Your task to perform on an android device: Search for Mexican restaurants on Maps Image 0: 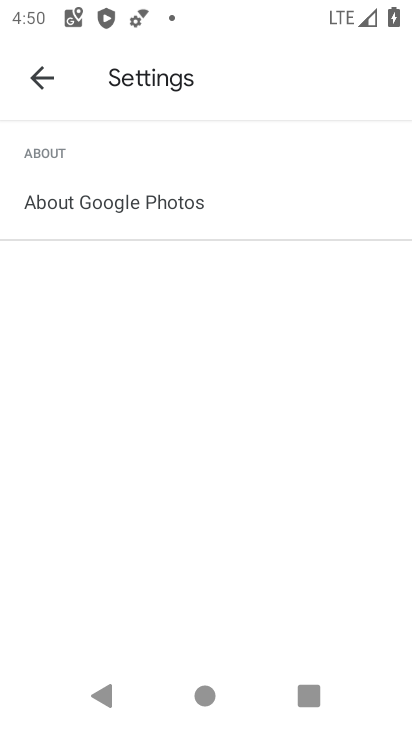
Step 0: press home button
Your task to perform on an android device: Search for Mexican restaurants on Maps Image 1: 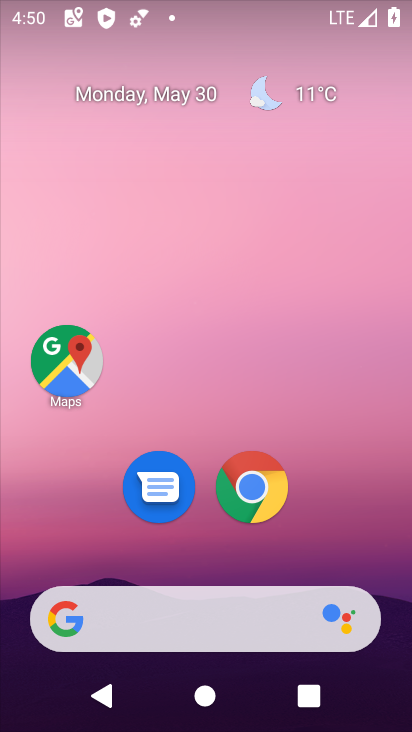
Step 1: click (65, 363)
Your task to perform on an android device: Search for Mexican restaurants on Maps Image 2: 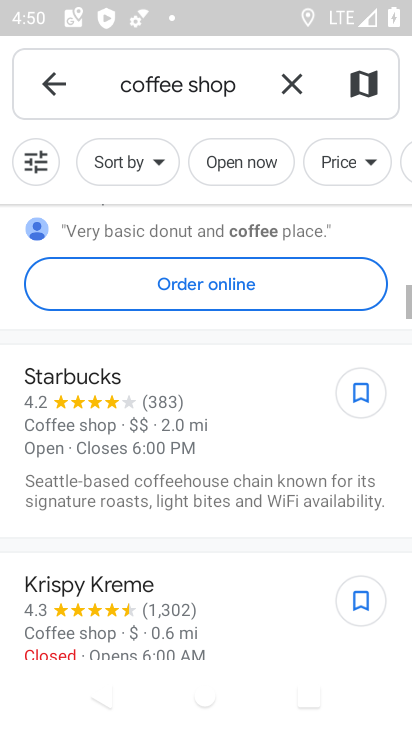
Step 2: click (286, 80)
Your task to perform on an android device: Search for Mexican restaurants on Maps Image 3: 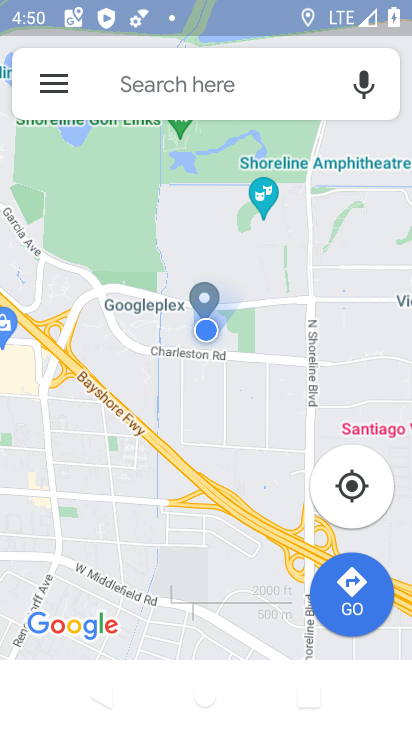
Step 3: click (159, 89)
Your task to perform on an android device: Search for Mexican restaurants on Maps Image 4: 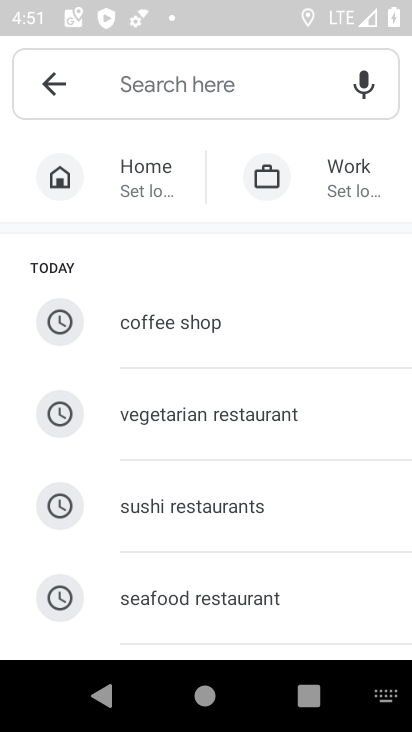
Step 4: type "mexican restaurants"
Your task to perform on an android device: Search for Mexican restaurants on Maps Image 5: 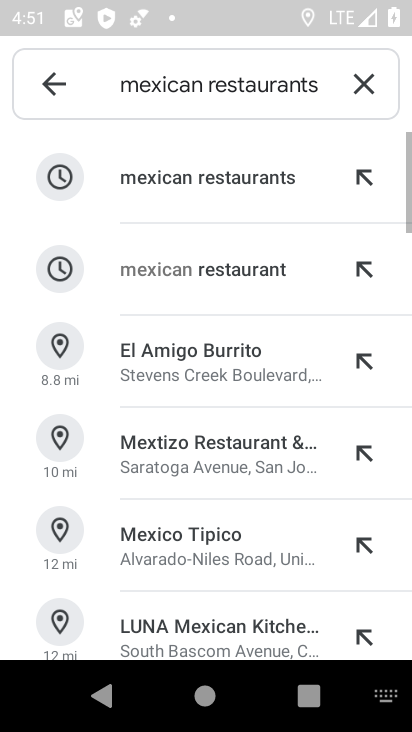
Step 5: click (182, 176)
Your task to perform on an android device: Search for Mexican restaurants on Maps Image 6: 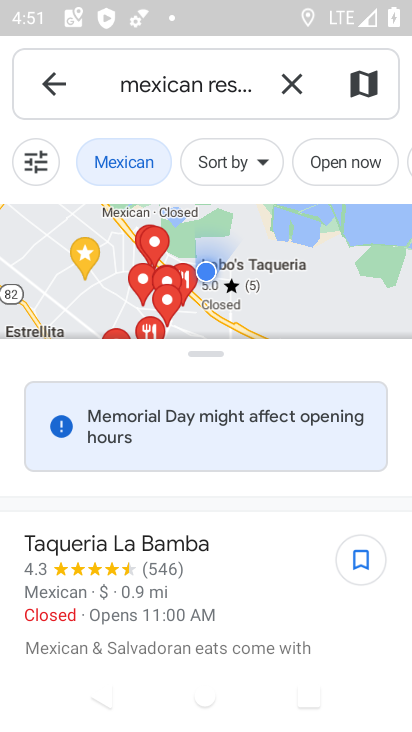
Step 6: task complete